Your task to perform on an android device: Open Chrome and go to the settings page Image 0: 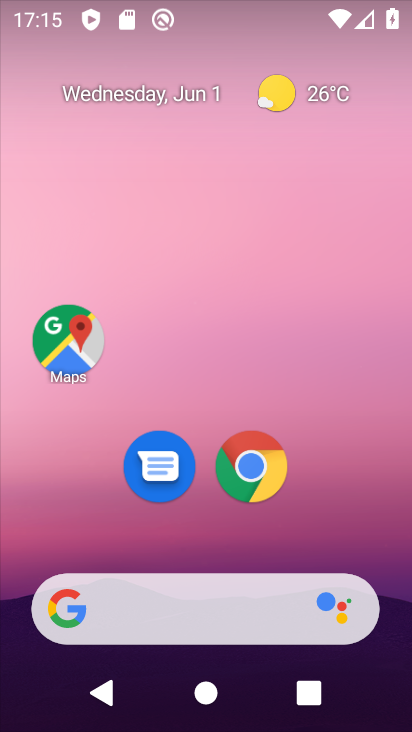
Step 0: click (253, 459)
Your task to perform on an android device: Open Chrome and go to the settings page Image 1: 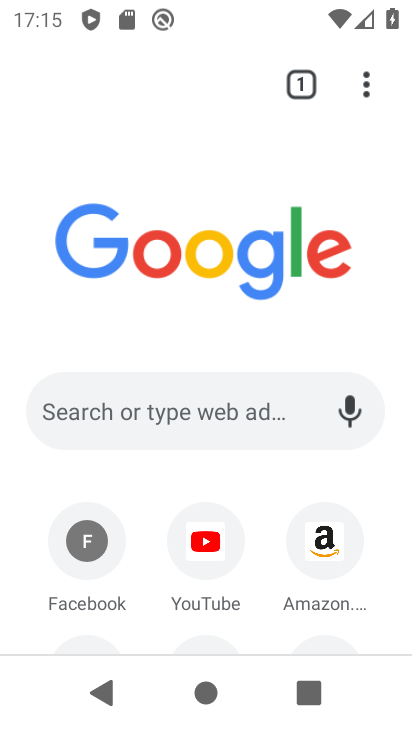
Step 1: click (360, 84)
Your task to perform on an android device: Open Chrome and go to the settings page Image 2: 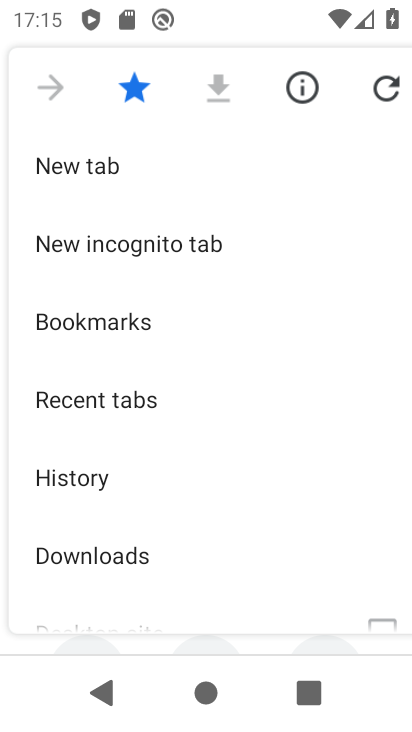
Step 2: drag from (200, 538) to (183, 217)
Your task to perform on an android device: Open Chrome and go to the settings page Image 3: 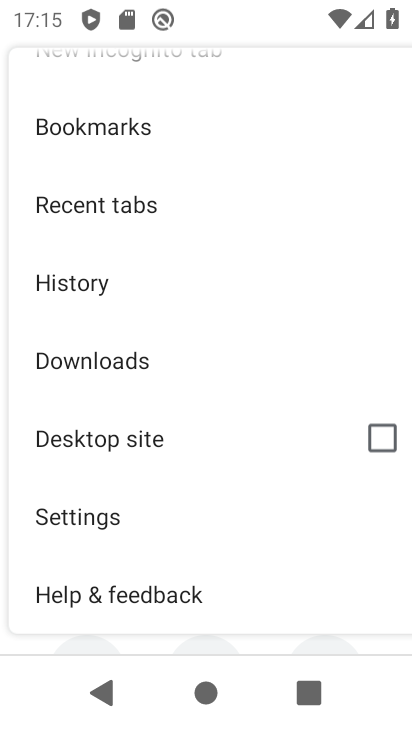
Step 3: click (94, 509)
Your task to perform on an android device: Open Chrome and go to the settings page Image 4: 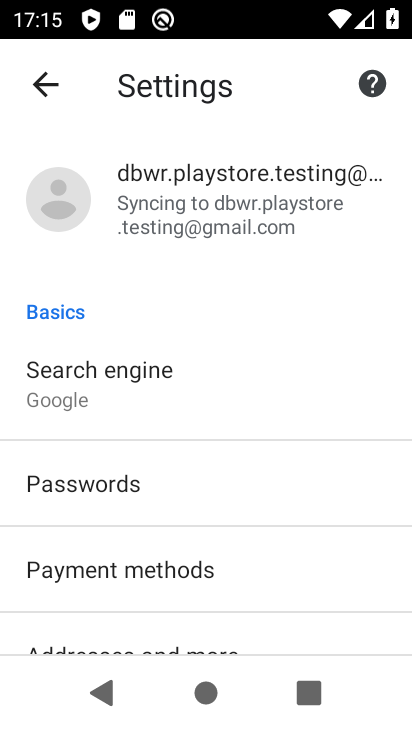
Step 4: task complete